Your task to perform on an android device: turn off javascript in the chrome app Image 0: 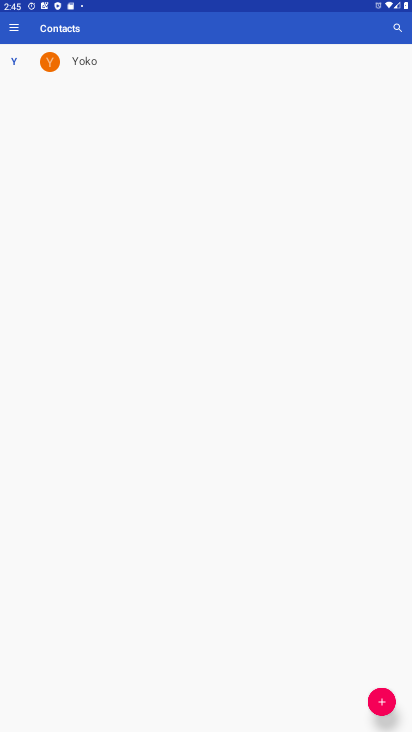
Step 0: press home button
Your task to perform on an android device: turn off javascript in the chrome app Image 1: 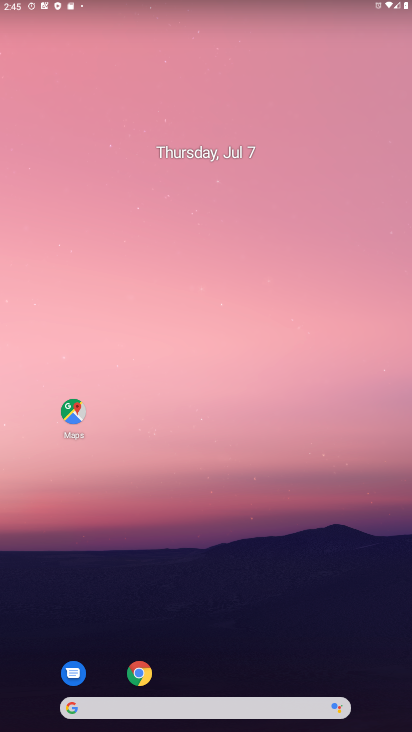
Step 1: drag from (212, 682) to (182, 139)
Your task to perform on an android device: turn off javascript in the chrome app Image 2: 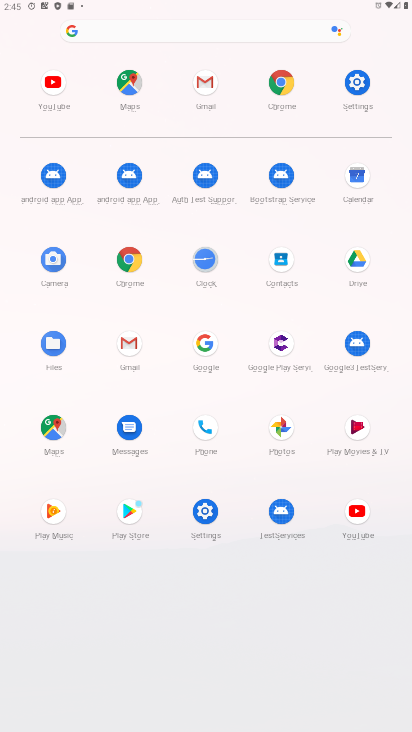
Step 2: click (134, 264)
Your task to perform on an android device: turn off javascript in the chrome app Image 3: 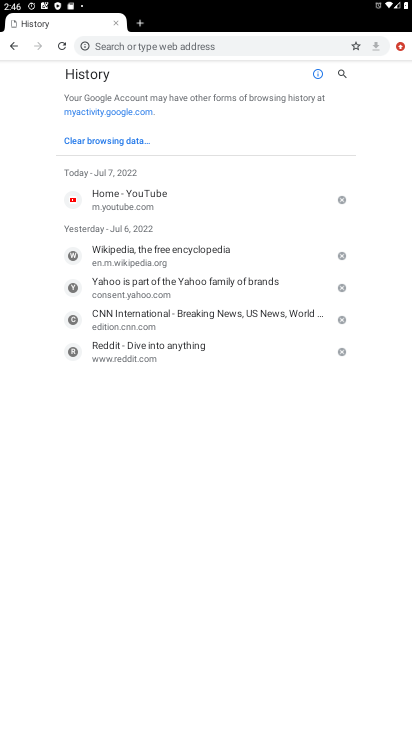
Step 3: click (20, 47)
Your task to perform on an android device: turn off javascript in the chrome app Image 4: 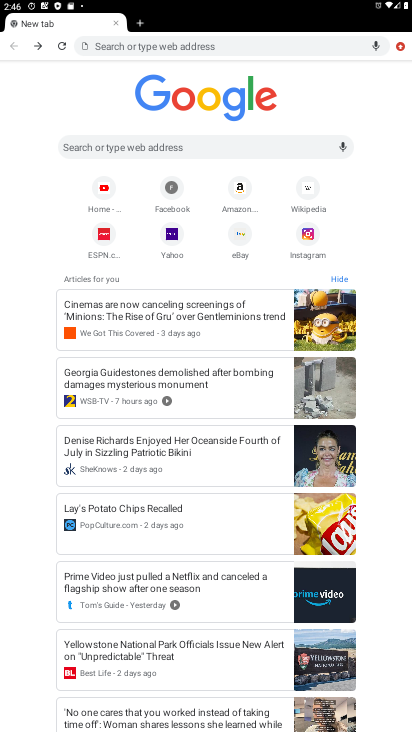
Step 4: click (392, 51)
Your task to perform on an android device: turn off javascript in the chrome app Image 5: 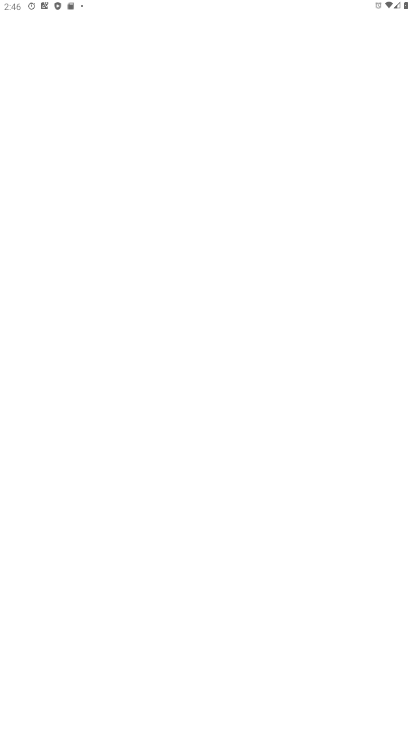
Step 5: press back button
Your task to perform on an android device: turn off javascript in the chrome app Image 6: 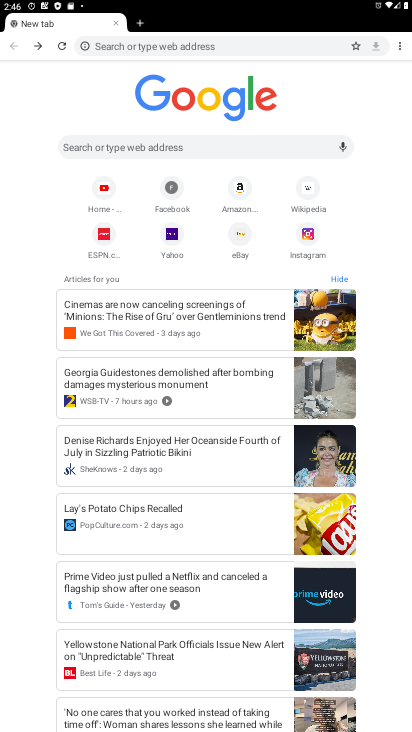
Step 6: click (393, 44)
Your task to perform on an android device: turn off javascript in the chrome app Image 7: 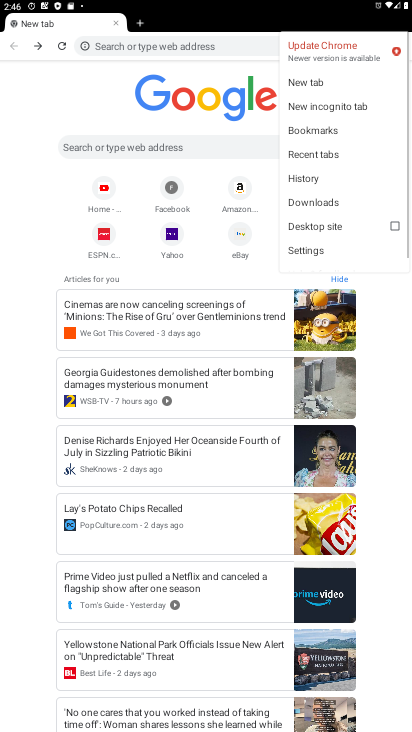
Step 7: click (295, 254)
Your task to perform on an android device: turn off javascript in the chrome app Image 8: 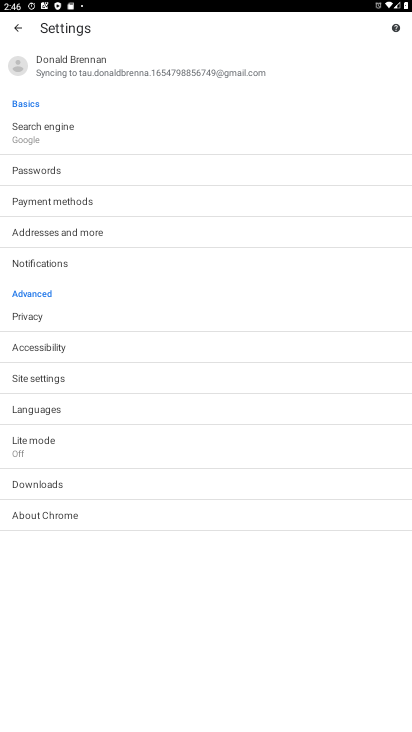
Step 8: click (31, 384)
Your task to perform on an android device: turn off javascript in the chrome app Image 9: 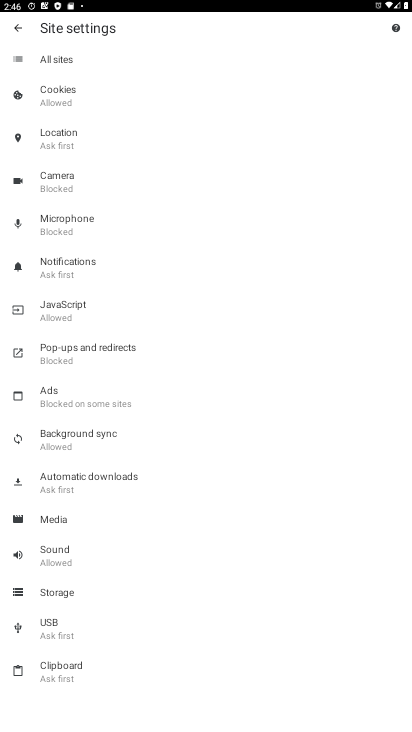
Step 9: click (61, 315)
Your task to perform on an android device: turn off javascript in the chrome app Image 10: 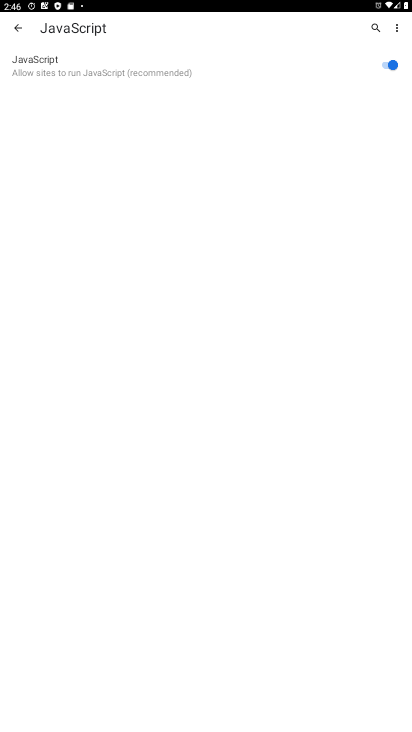
Step 10: click (364, 67)
Your task to perform on an android device: turn off javascript in the chrome app Image 11: 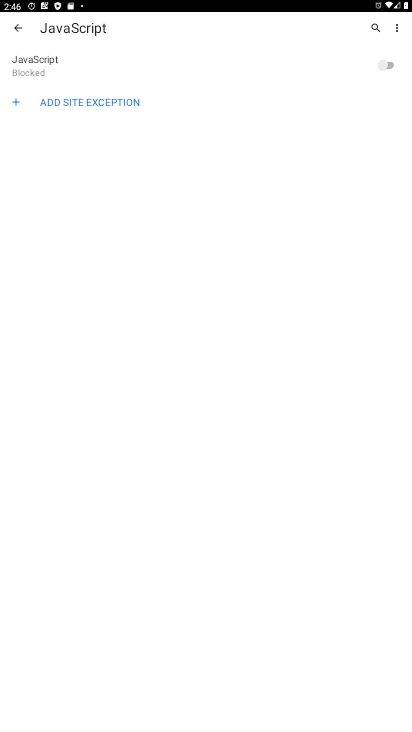
Step 11: task complete